Your task to perform on an android device: Open wifi settings Image 0: 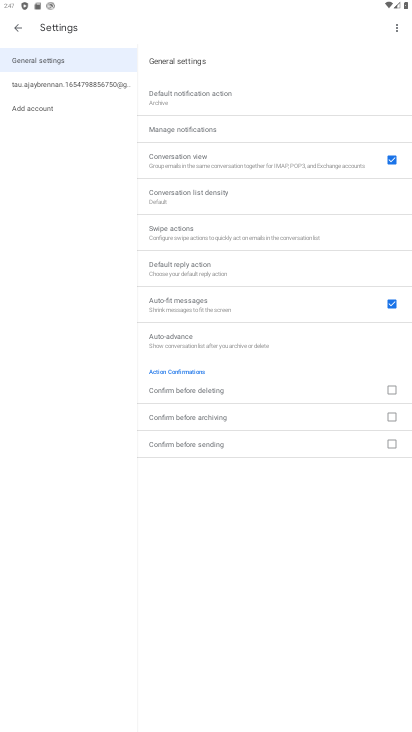
Step 0: press home button
Your task to perform on an android device: Open wifi settings Image 1: 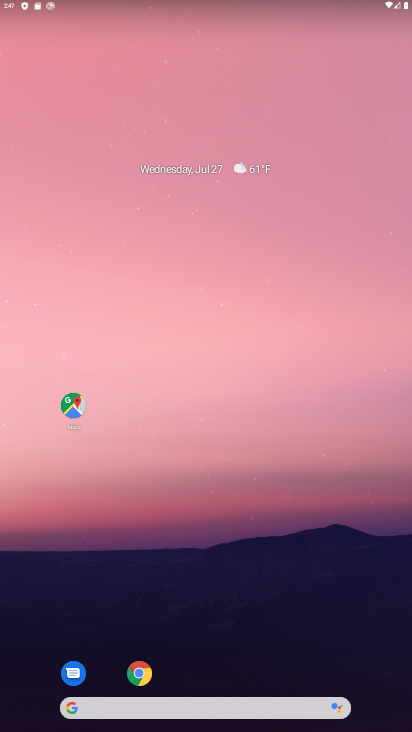
Step 1: drag from (240, 644) to (192, 69)
Your task to perform on an android device: Open wifi settings Image 2: 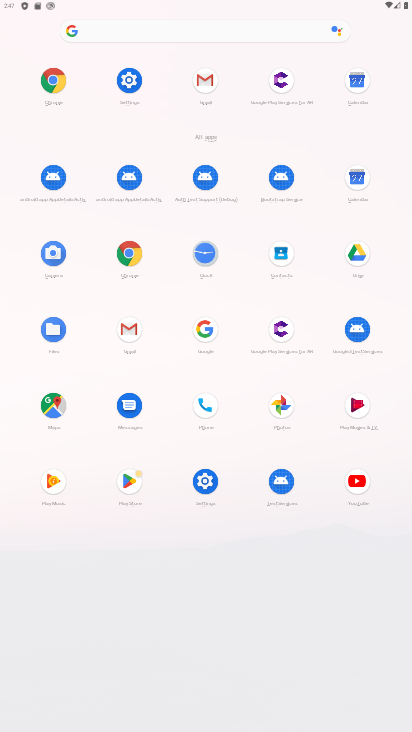
Step 2: click (208, 492)
Your task to perform on an android device: Open wifi settings Image 3: 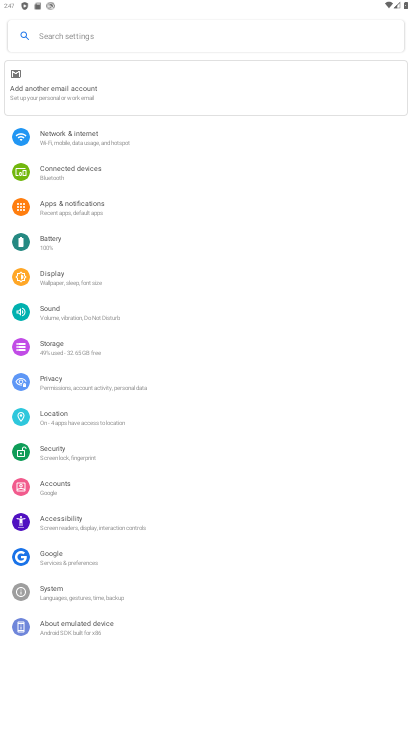
Step 3: click (109, 125)
Your task to perform on an android device: Open wifi settings Image 4: 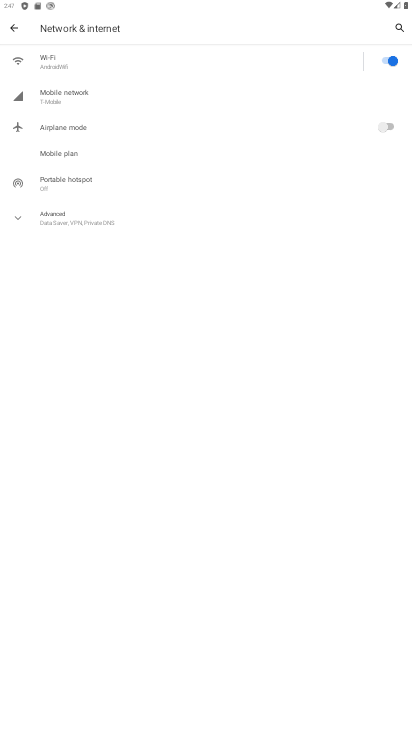
Step 4: click (79, 64)
Your task to perform on an android device: Open wifi settings Image 5: 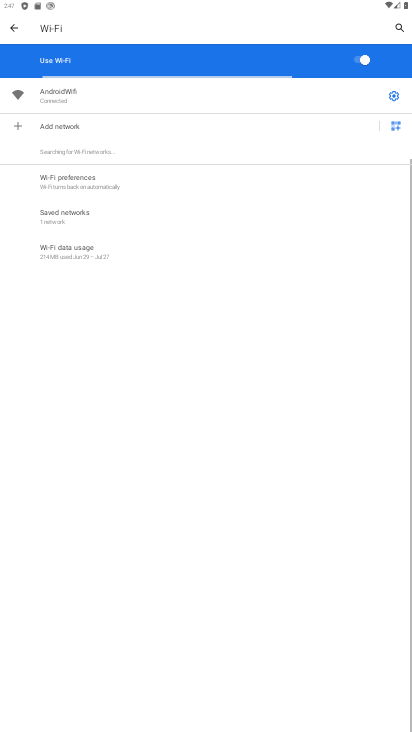
Step 5: task complete